Your task to perform on an android device: Go to Reddit.com Image 0: 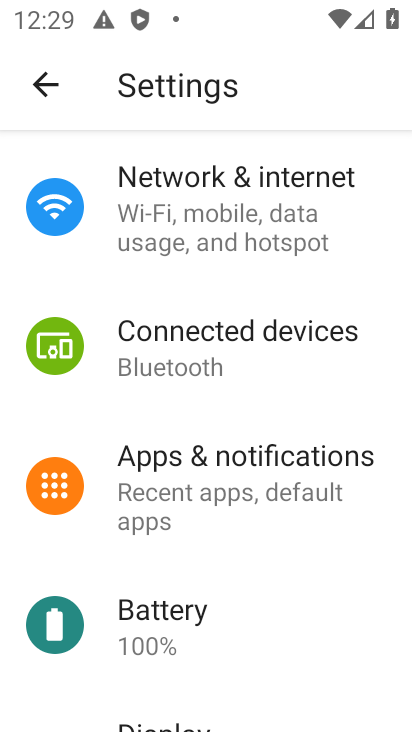
Step 0: press home button
Your task to perform on an android device: Go to Reddit.com Image 1: 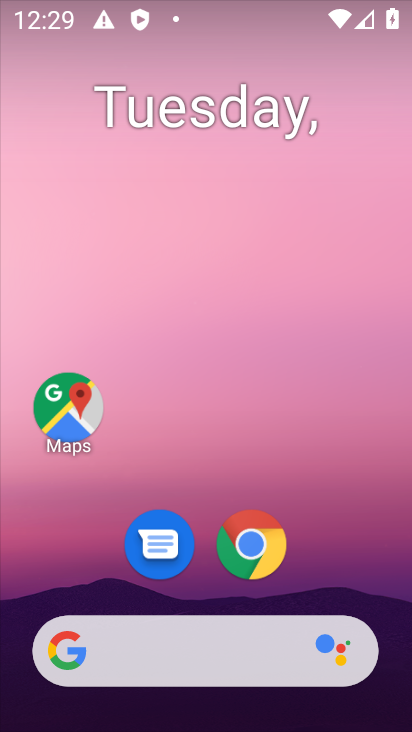
Step 1: drag from (339, 566) to (312, 40)
Your task to perform on an android device: Go to Reddit.com Image 2: 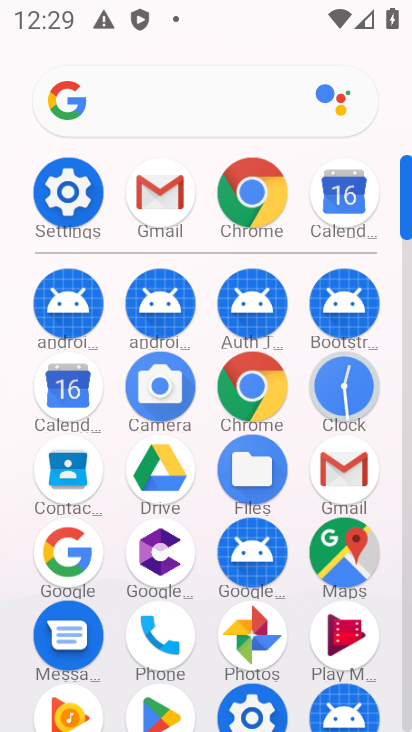
Step 2: click (258, 388)
Your task to perform on an android device: Go to Reddit.com Image 3: 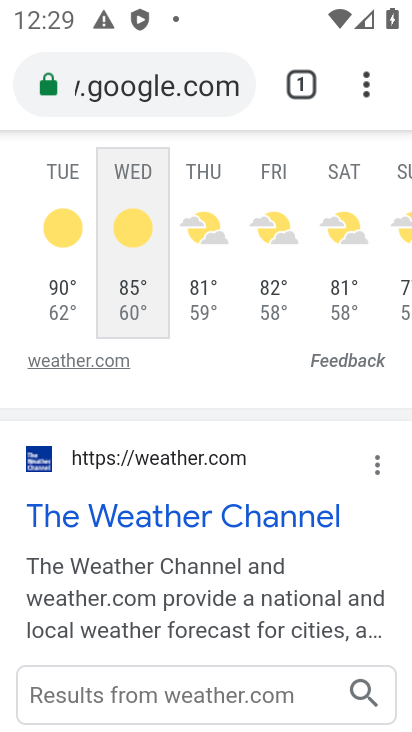
Step 3: click (211, 79)
Your task to perform on an android device: Go to Reddit.com Image 4: 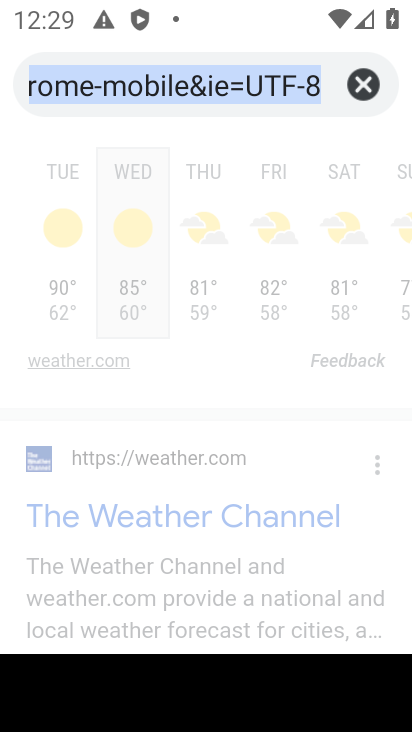
Step 4: type "reddit.com"
Your task to perform on an android device: Go to Reddit.com Image 5: 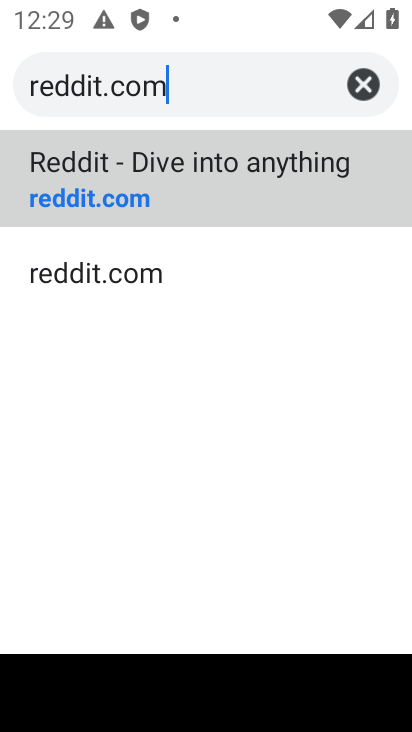
Step 5: click (101, 195)
Your task to perform on an android device: Go to Reddit.com Image 6: 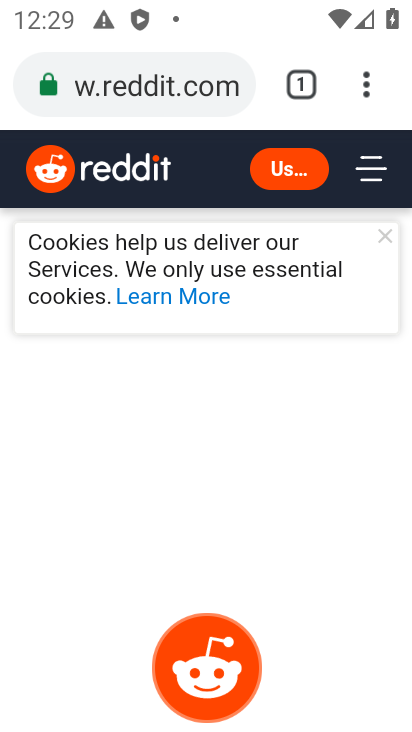
Step 6: task complete